Your task to perform on an android device: delete location history Image 0: 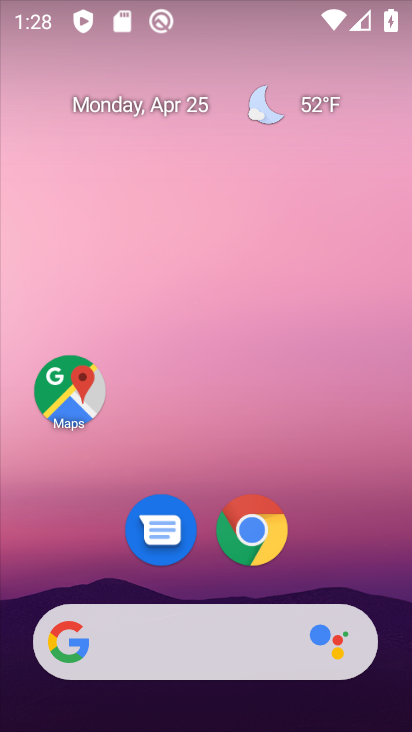
Step 0: drag from (387, 515) to (385, 67)
Your task to perform on an android device: delete location history Image 1: 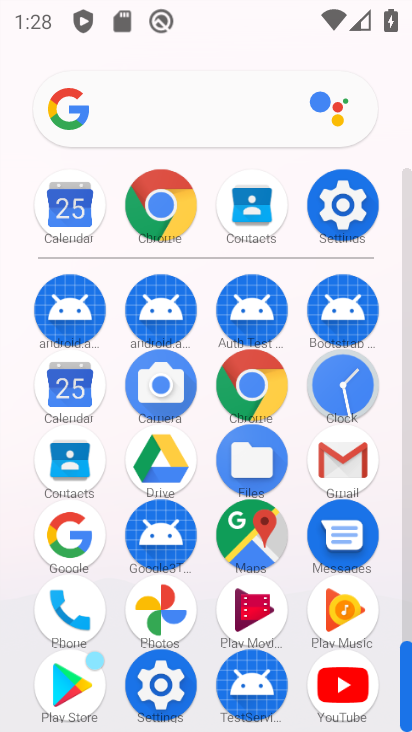
Step 1: click (357, 201)
Your task to perform on an android device: delete location history Image 2: 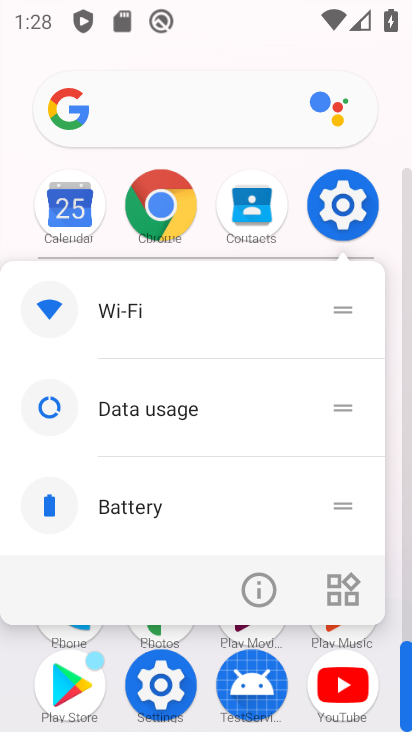
Step 2: drag from (389, 162) to (394, 81)
Your task to perform on an android device: delete location history Image 3: 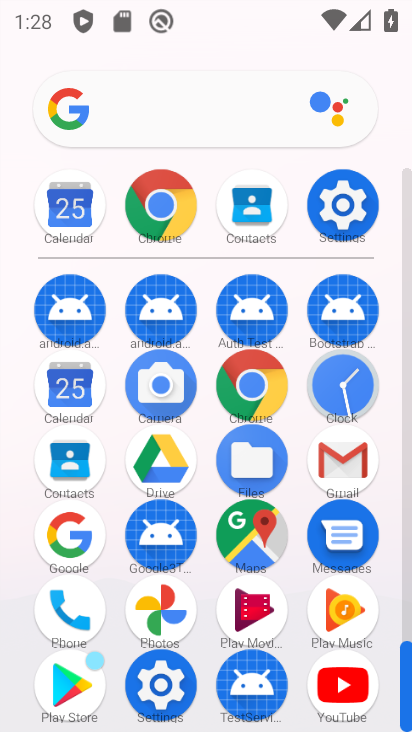
Step 3: drag from (384, 608) to (404, 342)
Your task to perform on an android device: delete location history Image 4: 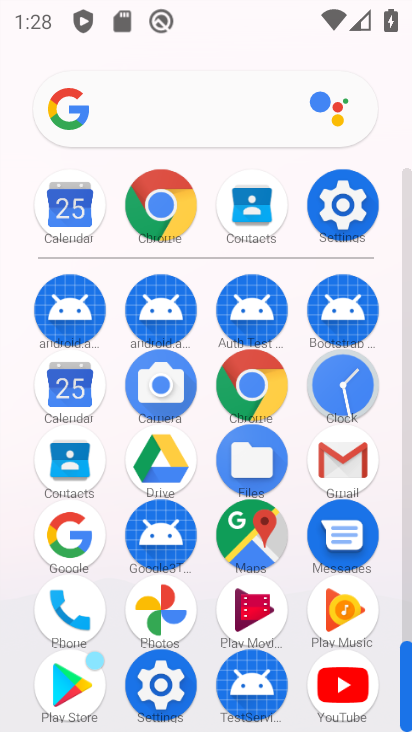
Step 4: click (152, 683)
Your task to perform on an android device: delete location history Image 5: 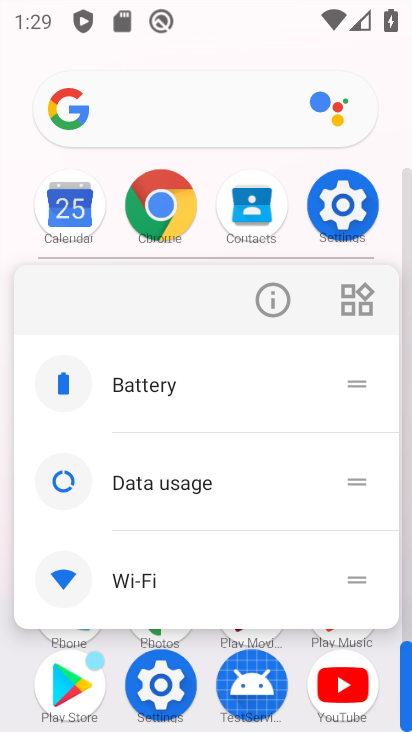
Step 5: click (157, 689)
Your task to perform on an android device: delete location history Image 6: 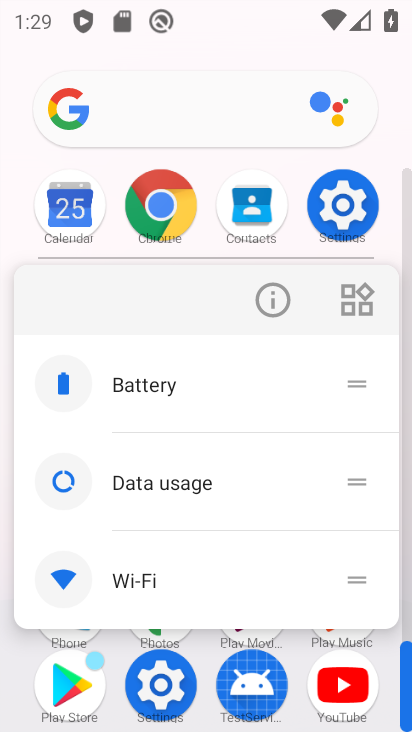
Step 6: click (155, 703)
Your task to perform on an android device: delete location history Image 7: 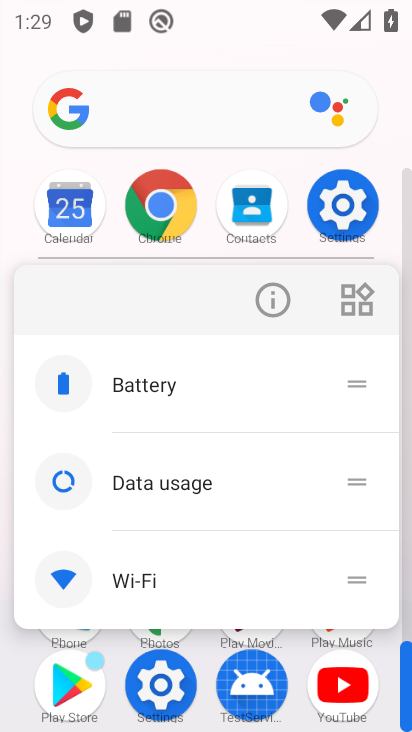
Step 7: click (155, 702)
Your task to perform on an android device: delete location history Image 8: 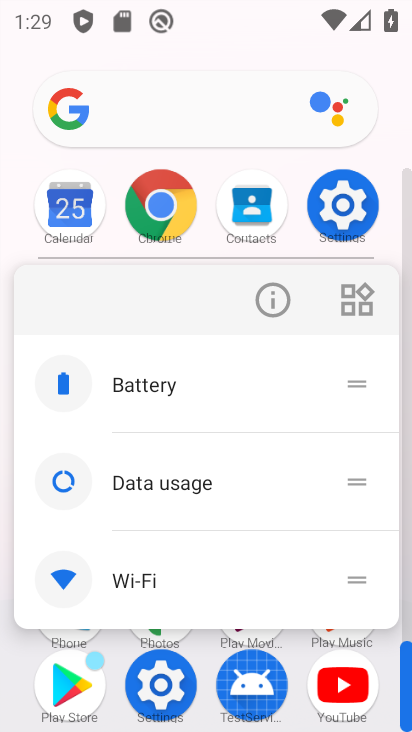
Step 8: click (156, 701)
Your task to perform on an android device: delete location history Image 9: 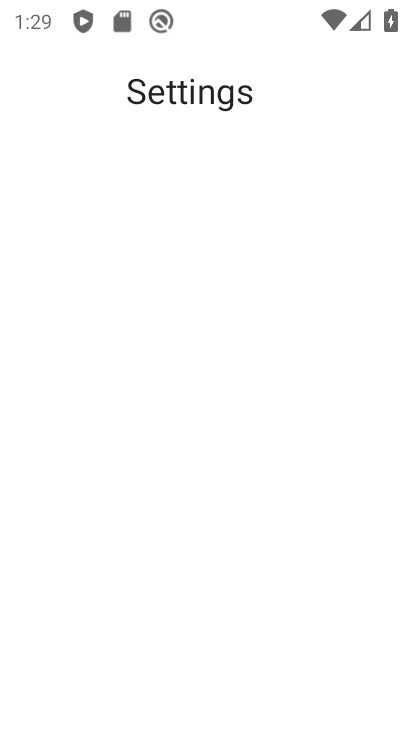
Step 9: click (156, 701)
Your task to perform on an android device: delete location history Image 10: 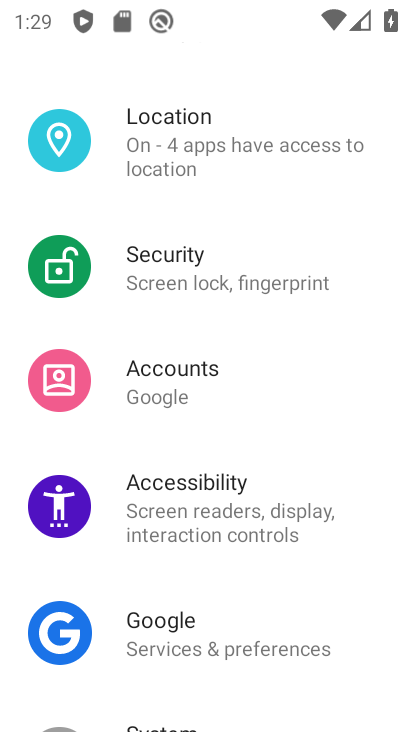
Step 10: drag from (345, 642) to (358, 375)
Your task to perform on an android device: delete location history Image 11: 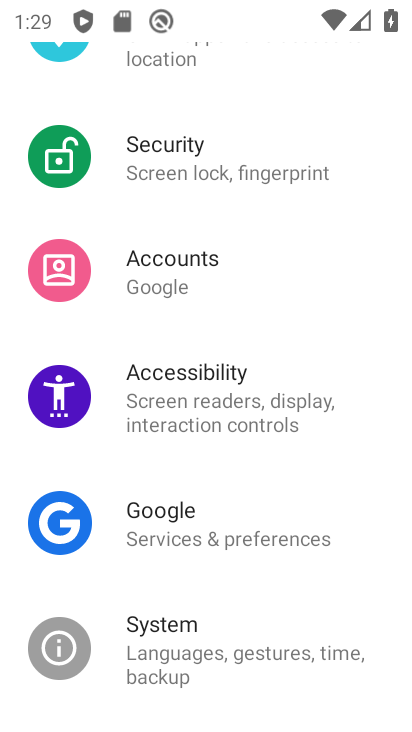
Step 11: click (175, 55)
Your task to perform on an android device: delete location history Image 12: 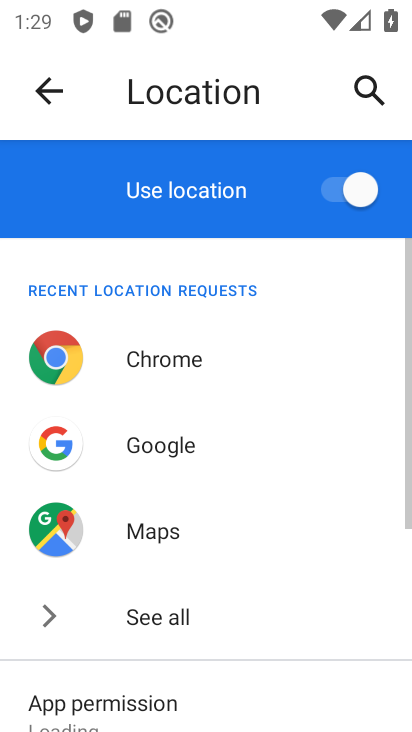
Step 12: drag from (250, 544) to (251, 203)
Your task to perform on an android device: delete location history Image 13: 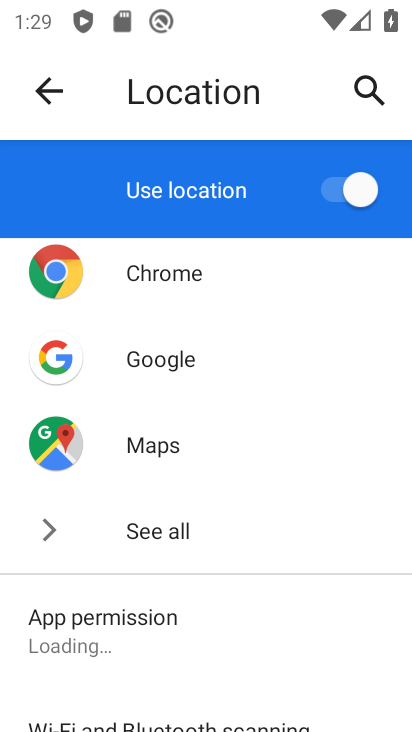
Step 13: drag from (286, 672) to (255, 290)
Your task to perform on an android device: delete location history Image 14: 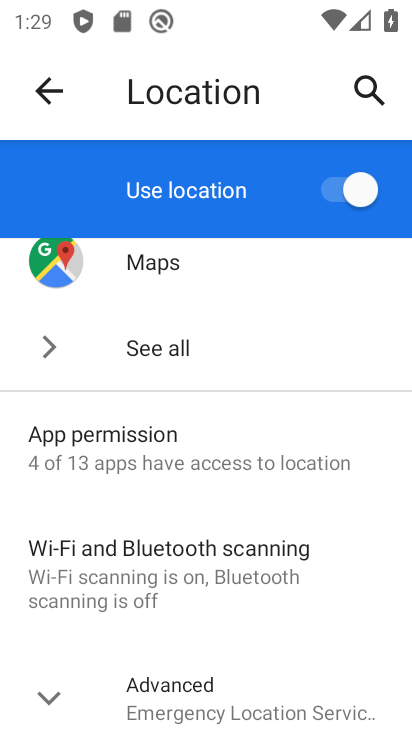
Step 14: click (268, 700)
Your task to perform on an android device: delete location history Image 15: 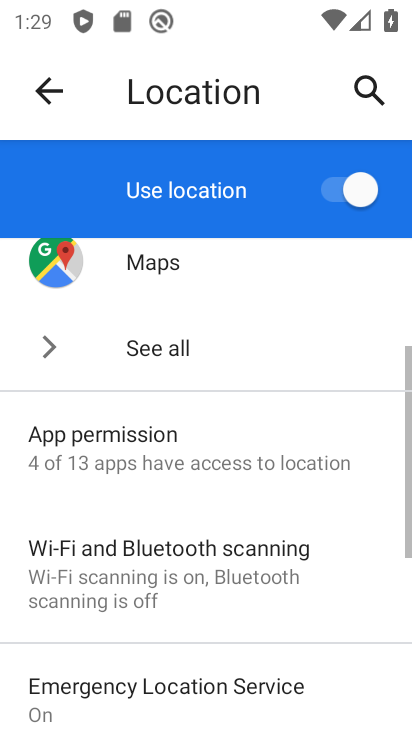
Step 15: drag from (351, 690) to (367, 451)
Your task to perform on an android device: delete location history Image 16: 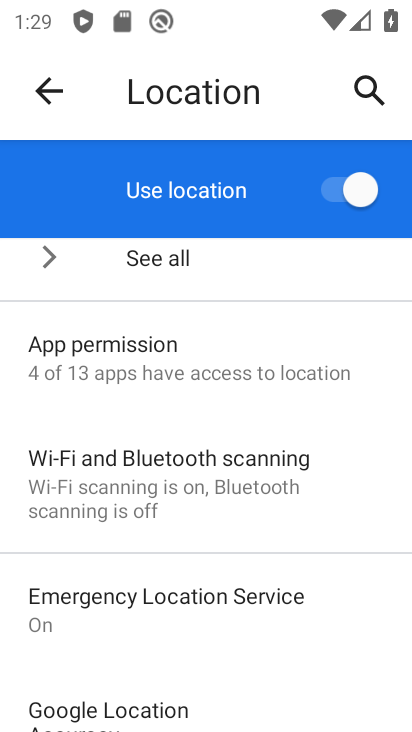
Step 16: drag from (362, 623) to (357, 339)
Your task to perform on an android device: delete location history Image 17: 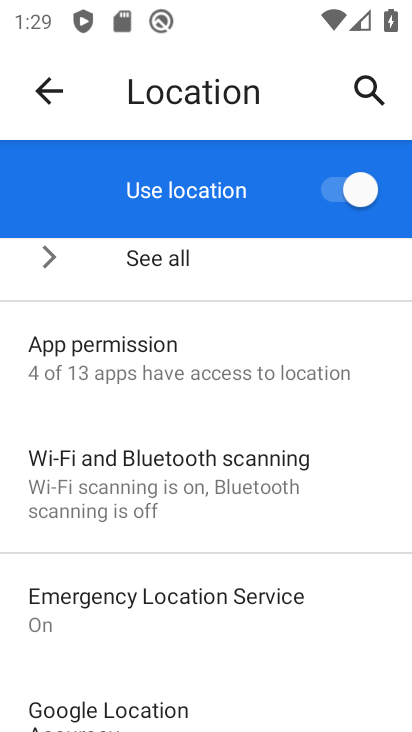
Step 17: drag from (347, 619) to (353, 371)
Your task to perform on an android device: delete location history Image 18: 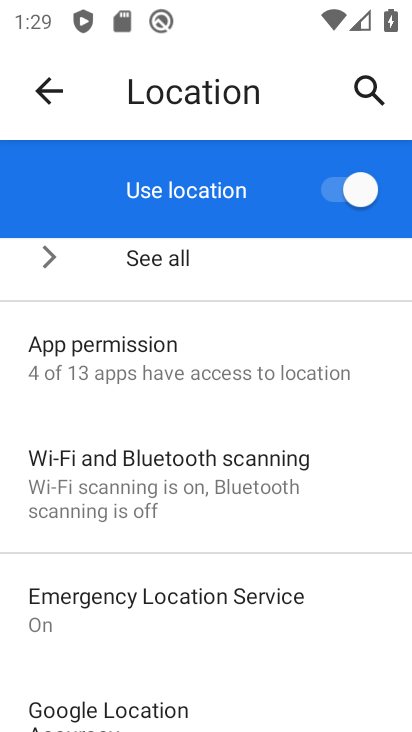
Step 18: drag from (314, 671) to (345, 417)
Your task to perform on an android device: delete location history Image 19: 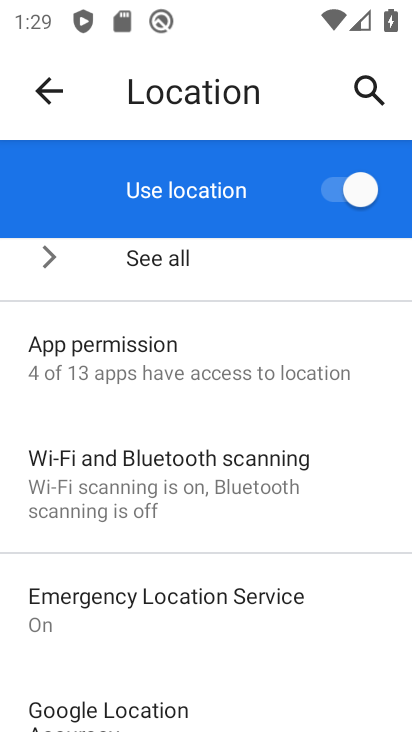
Step 19: drag from (200, 638) to (317, 376)
Your task to perform on an android device: delete location history Image 20: 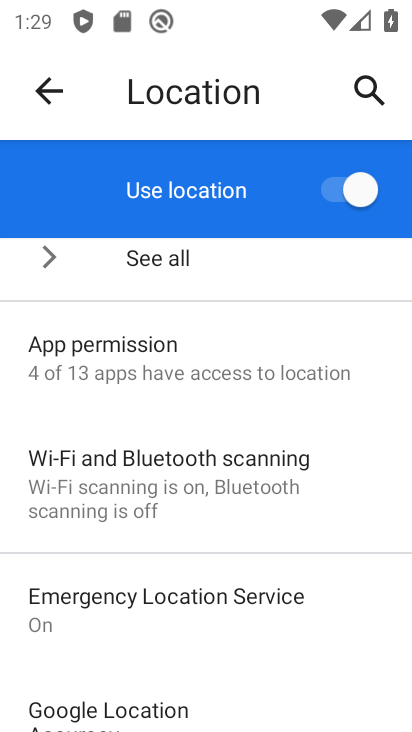
Step 20: drag from (205, 628) to (273, 376)
Your task to perform on an android device: delete location history Image 21: 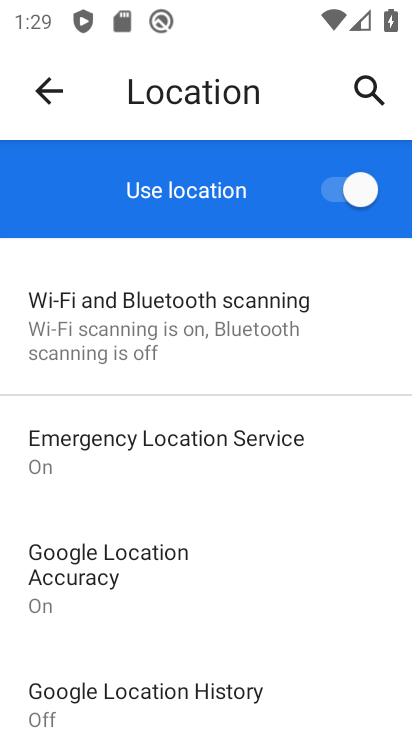
Step 21: click (219, 691)
Your task to perform on an android device: delete location history Image 22: 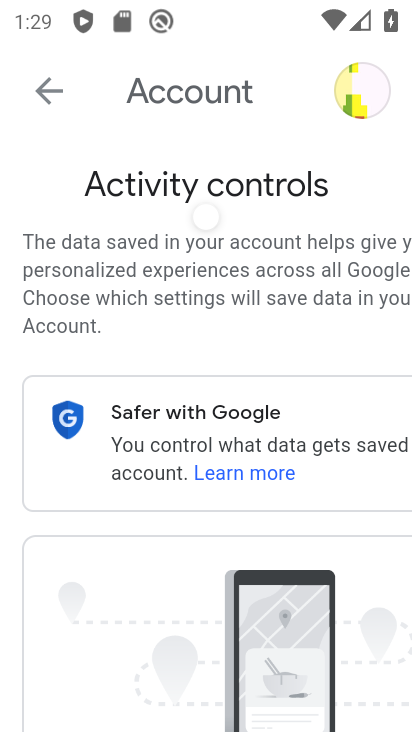
Step 22: drag from (161, 626) to (235, 357)
Your task to perform on an android device: delete location history Image 23: 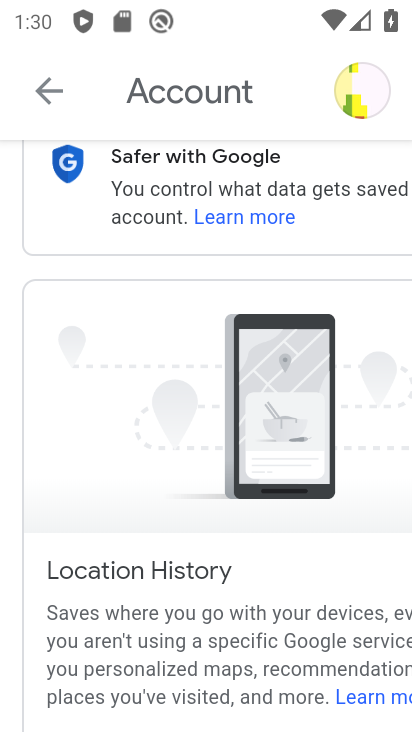
Step 23: drag from (146, 662) to (201, 293)
Your task to perform on an android device: delete location history Image 24: 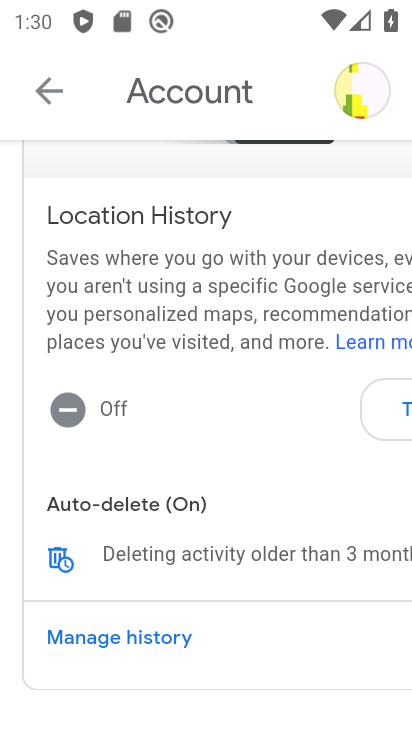
Step 24: click (397, 413)
Your task to perform on an android device: delete location history Image 25: 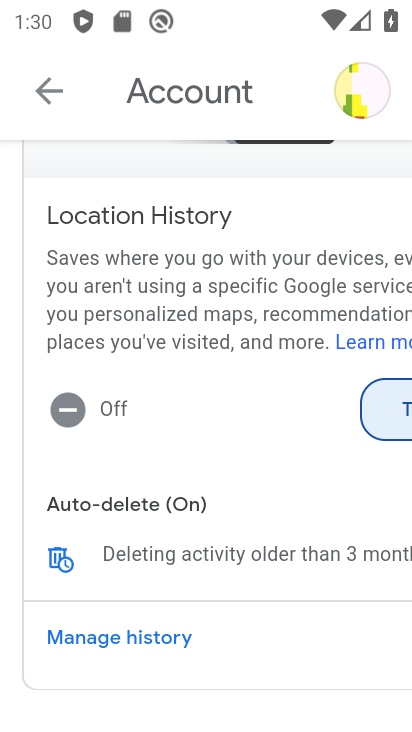
Step 25: click (199, 613)
Your task to perform on an android device: delete location history Image 26: 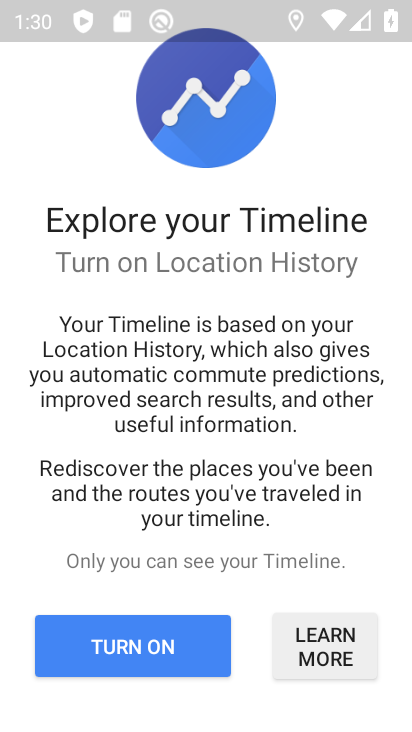
Step 26: drag from (280, 599) to (319, 310)
Your task to perform on an android device: delete location history Image 27: 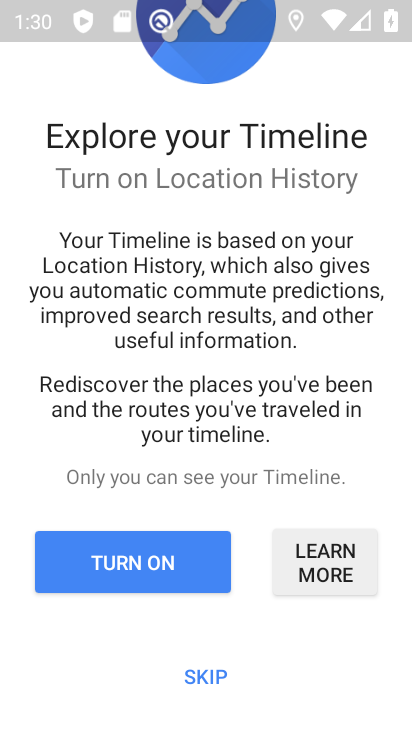
Step 27: click (199, 678)
Your task to perform on an android device: delete location history Image 28: 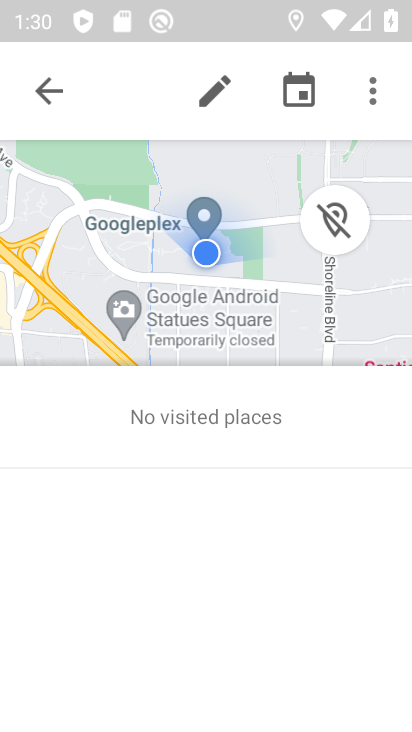
Step 28: click (376, 113)
Your task to perform on an android device: delete location history Image 29: 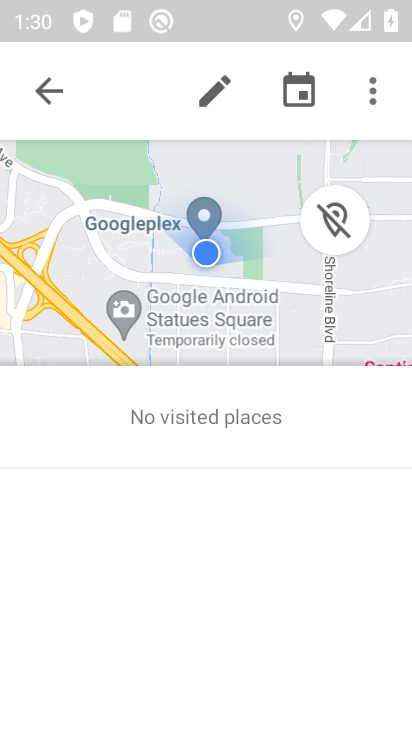
Step 29: click (376, 105)
Your task to perform on an android device: delete location history Image 30: 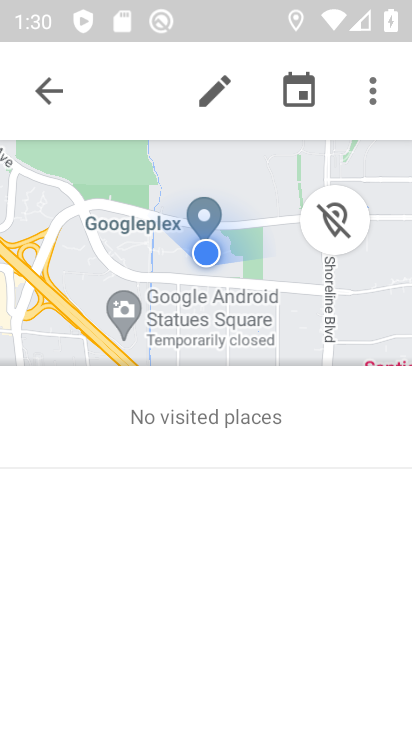
Step 30: click (376, 105)
Your task to perform on an android device: delete location history Image 31: 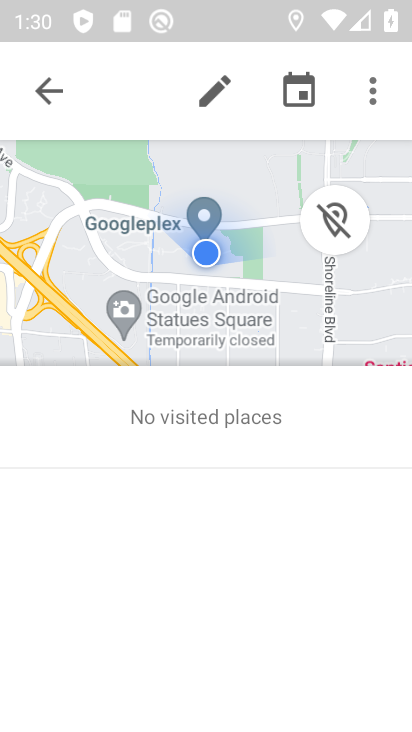
Step 31: task complete